Your task to perform on an android device: Show the shopping cart on bestbuy. Search for "logitech g933" on bestbuy, select the first entry, add it to the cart, then select checkout. Image 0: 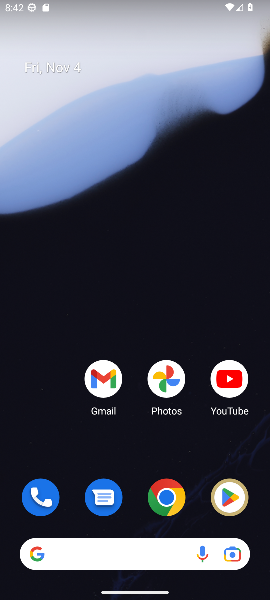
Step 0: click (164, 498)
Your task to perform on an android device: Show the shopping cart on bestbuy. Search for "logitech g933" on bestbuy, select the first entry, add it to the cart, then select checkout. Image 1: 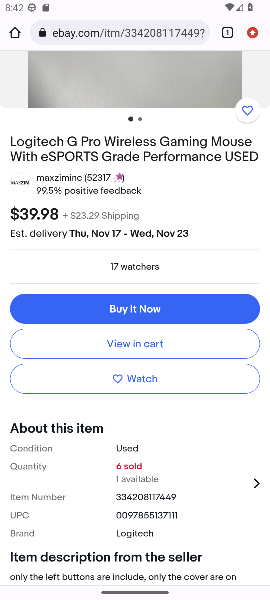
Step 1: click (135, 35)
Your task to perform on an android device: Show the shopping cart on bestbuy. Search for "logitech g933" on bestbuy, select the first entry, add it to the cart, then select checkout. Image 2: 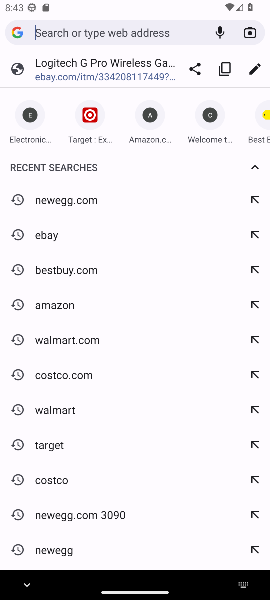
Step 2: type "bestbuy.com"
Your task to perform on an android device: Show the shopping cart on bestbuy. Search for "logitech g933" on bestbuy, select the first entry, add it to the cart, then select checkout. Image 3: 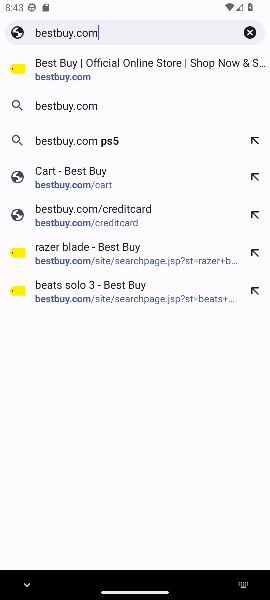
Step 3: click (66, 83)
Your task to perform on an android device: Show the shopping cart on bestbuy. Search for "logitech g933" on bestbuy, select the first entry, add it to the cart, then select checkout. Image 4: 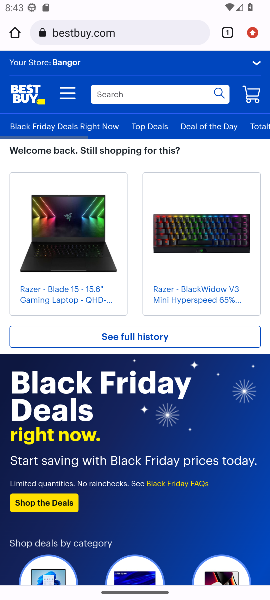
Step 4: click (250, 97)
Your task to perform on an android device: Show the shopping cart on bestbuy. Search for "logitech g933" on bestbuy, select the first entry, add it to the cart, then select checkout. Image 5: 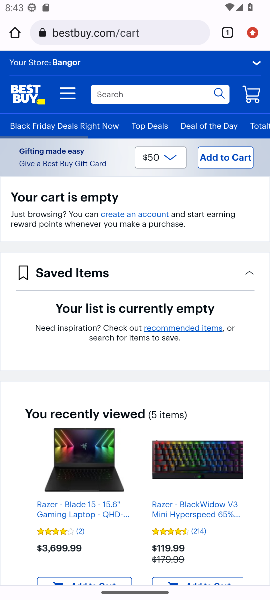
Step 5: click (152, 101)
Your task to perform on an android device: Show the shopping cart on bestbuy. Search for "logitech g933" on bestbuy, select the first entry, add it to the cart, then select checkout. Image 6: 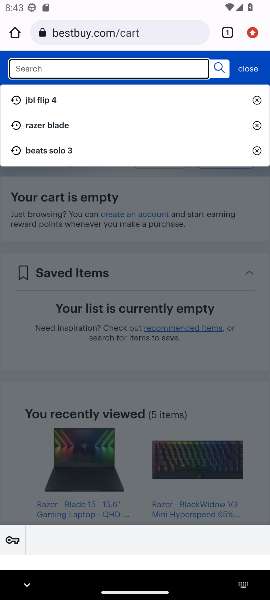
Step 6: type "logitech g933"
Your task to perform on an android device: Show the shopping cart on bestbuy. Search for "logitech g933" on bestbuy, select the first entry, add it to the cart, then select checkout. Image 7: 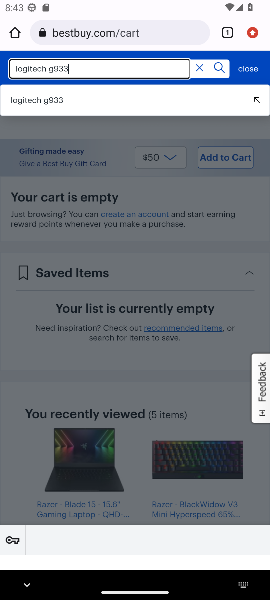
Step 7: click (41, 95)
Your task to perform on an android device: Show the shopping cart on bestbuy. Search for "logitech g933" on bestbuy, select the first entry, add it to the cart, then select checkout. Image 8: 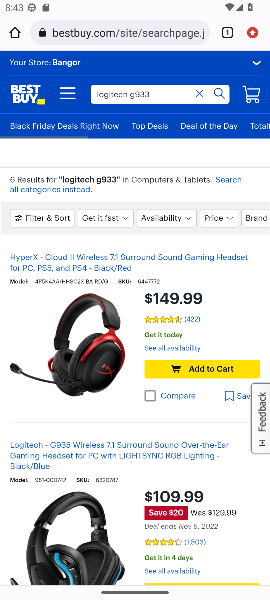
Step 8: task complete